Your task to perform on an android device: open chrome and create a bookmark for the current page Image 0: 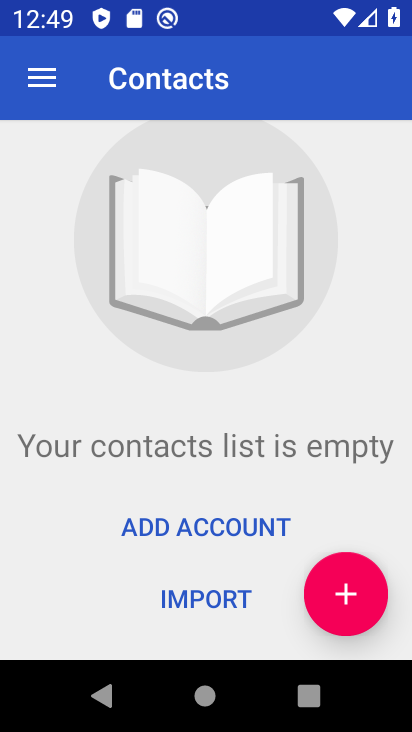
Step 0: press home button
Your task to perform on an android device: open chrome and create a bookmark for the current page Image 1: 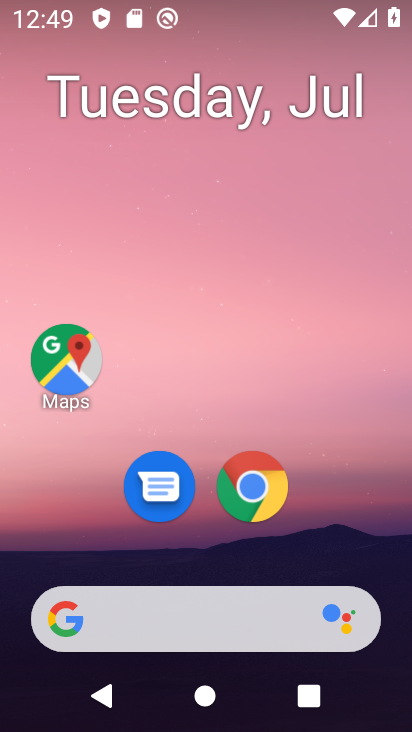
Step 1: drag from (383, 568) to (373, 115)
Your task to perform on an android device: open chrome and create a bookmark for the current page Image 2: 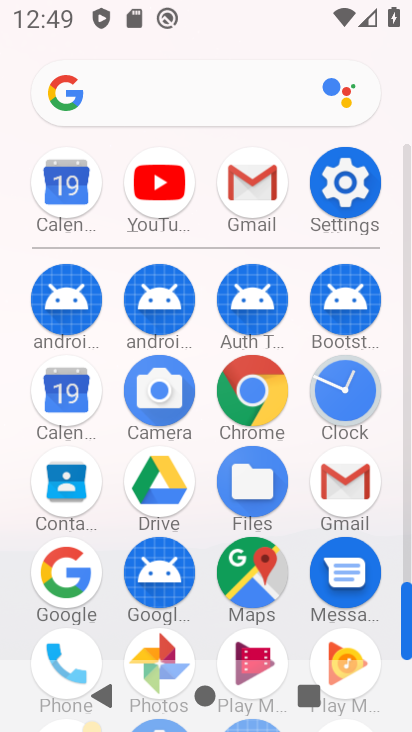
Step 2: click (264, 392)
Your task to perform on an android device: open chrome and create a bookmark for the current page Image 3: 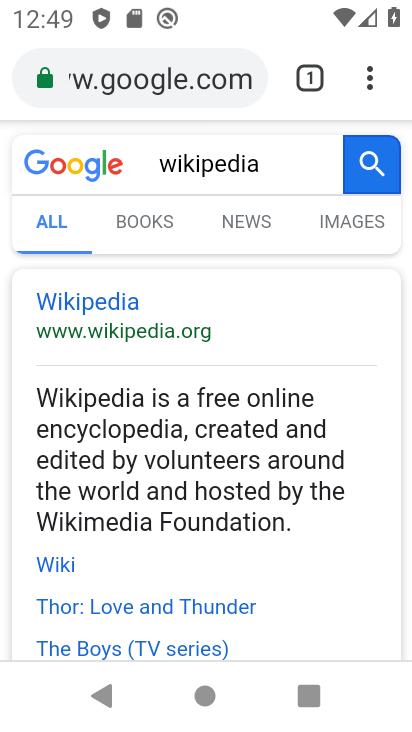
Step 3: click (370, 83)
Your task to perform on an android device: open chrome and create a bookmark for the current page Image 4: 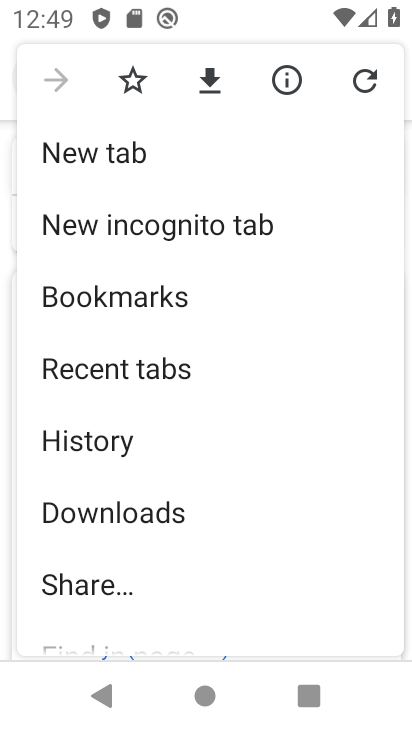
Step 4: click (217, 306)
Your task to perform on an android device: open chrome and create a bookmark for the current page Image 5: 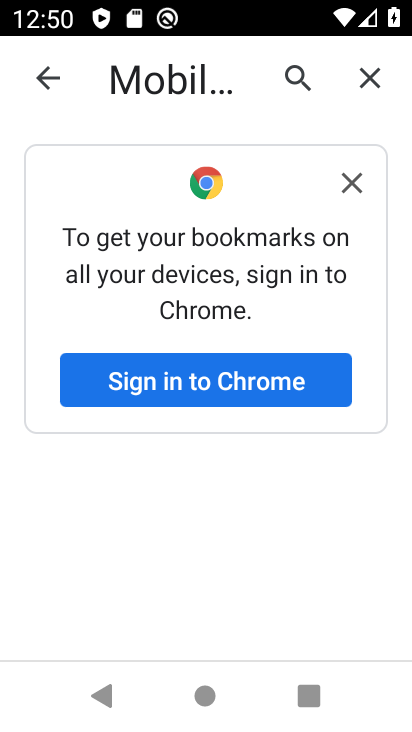
Step 5: task complete